Your task to perform on an android device: Search for pizza restaurants on Maps Image 0: 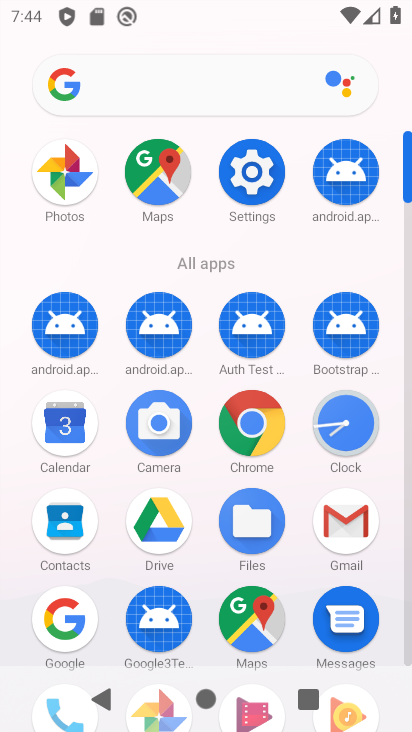
Step 0: click (171, 192)
Your task to perform on an android device: Search for pizza restaurants on Maps Image 1: 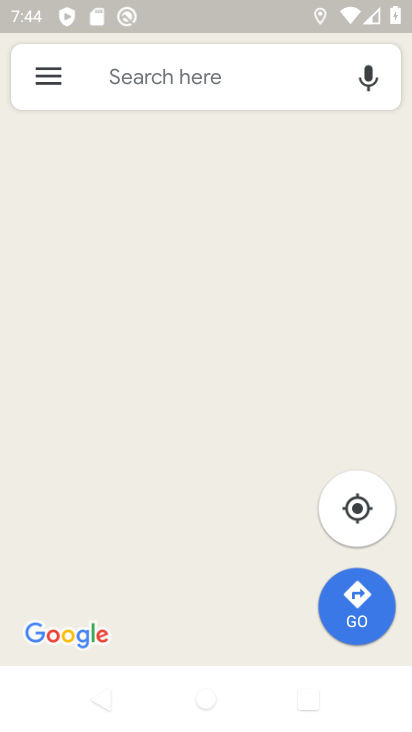
Step 1: click (228, 82)
Your task to perform on an android device: Search for pizza restaurants on Maps Image 2: 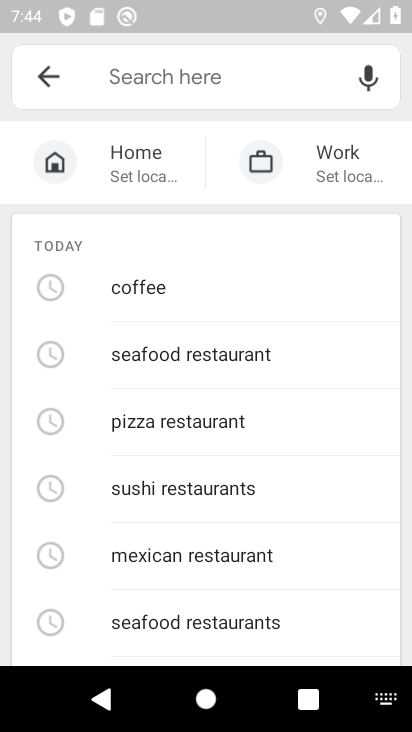
Step 2: type "pi"
Your task to perform on an android device: Search for pizza restaurants on Maps Image 3: 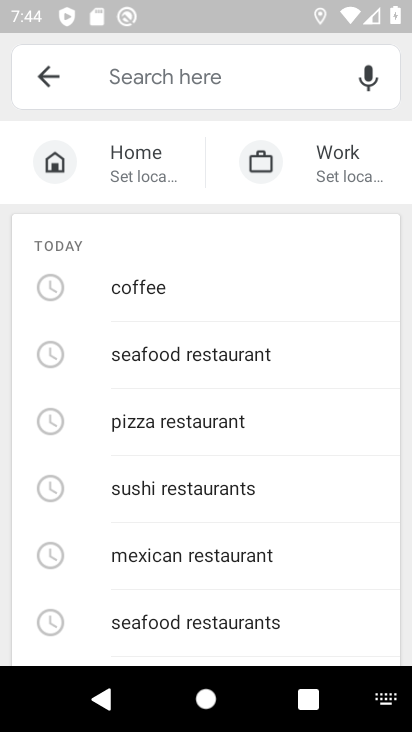
Step 3: click (212, 439)
Your task to perform on an android device: Search for pizza restaurants on Maps Image 4: 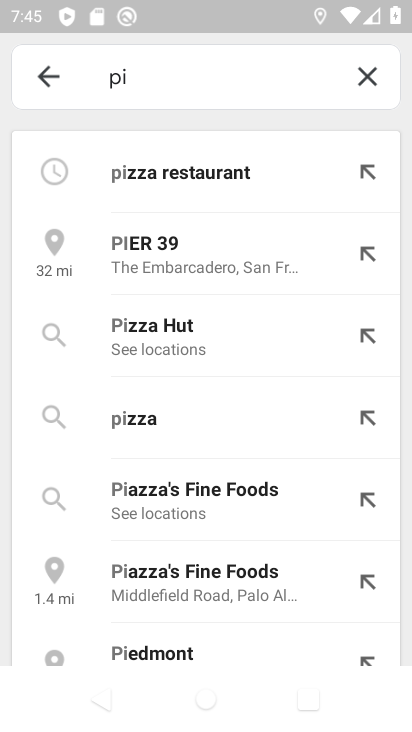
Step 4: click (203, 175)
Your task to perform on an android device: Search for pizza restaurants on Maps Image 5: 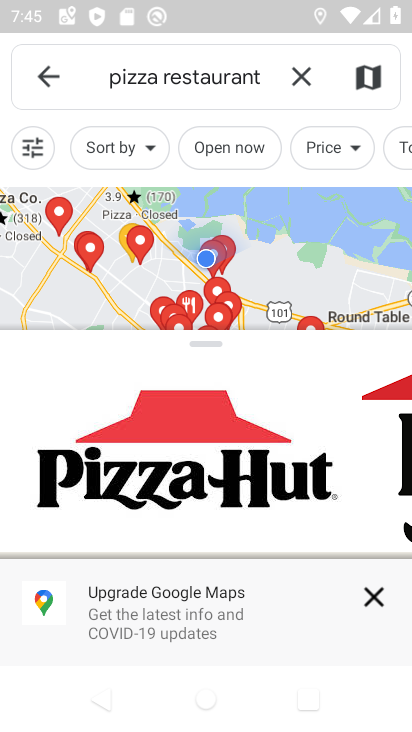
Step 5: click (379, 583)
Your task to perform on an android device: Search for pizza restaurants on Maps Image 6: 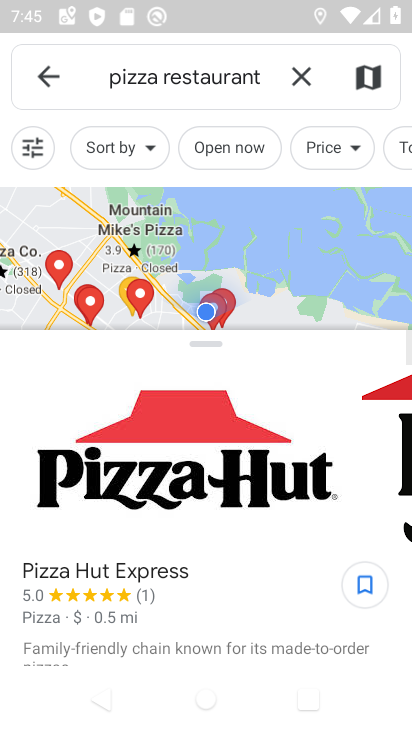
Step 6: task complete